Your task to perform on an android device: Show me productivity apps on the Play Store Image 0: 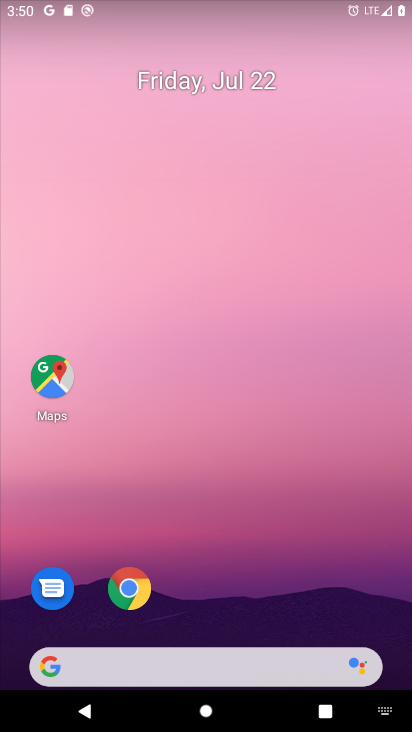
Step 0: drag from (264, 598) to (278, 73)
Your task to perform on an android device: Show me productivity apps on the Play Store Image 1: 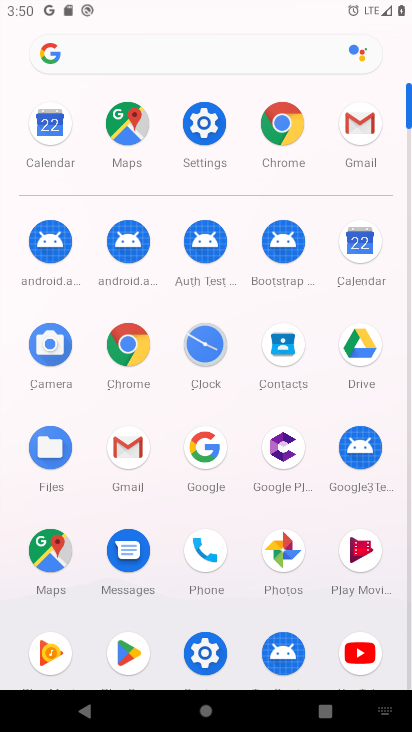
Step 1: click (133, 646)
Your task to perform on an android device: Show me productivity apps on the Play Store Image 2: 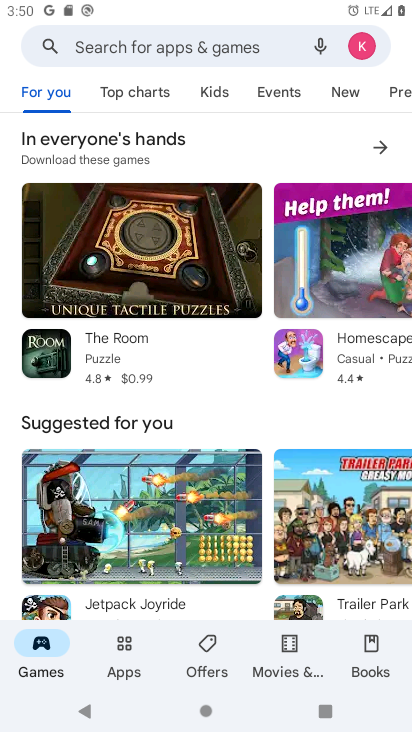
Step 2: click (111, 37)
Your task to perform on an android device: Show me productivity apps on the Play Store Image 3: 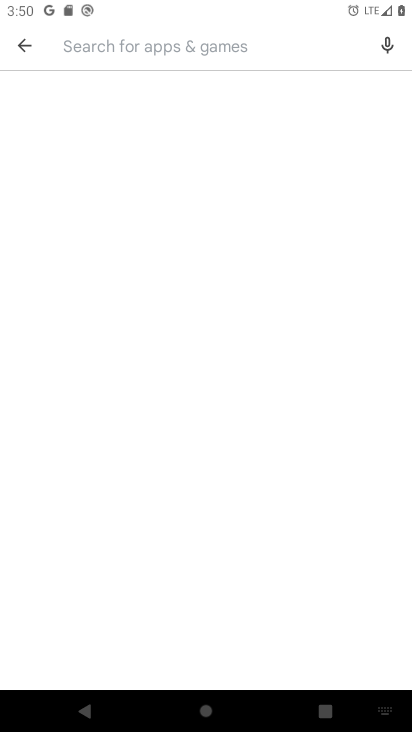
Step 3: type " productivity apps "
Your task to perform on an android device: Show me productivity apps on the Play Store Image 4: 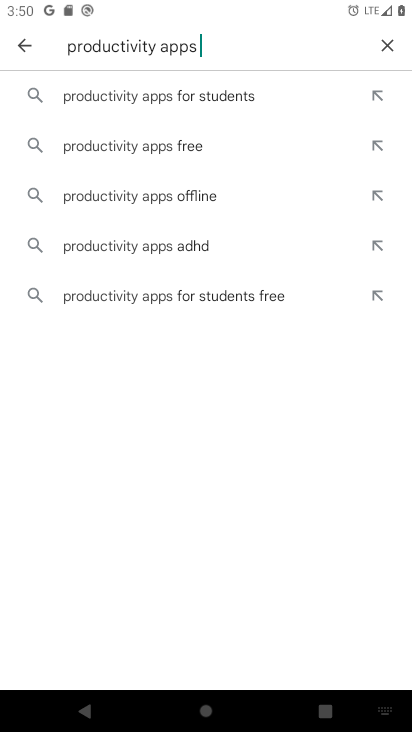
Step 4: click (84, 92)
Your task to perform on an android device: Show me productivity apps on the Play Store Image 5: 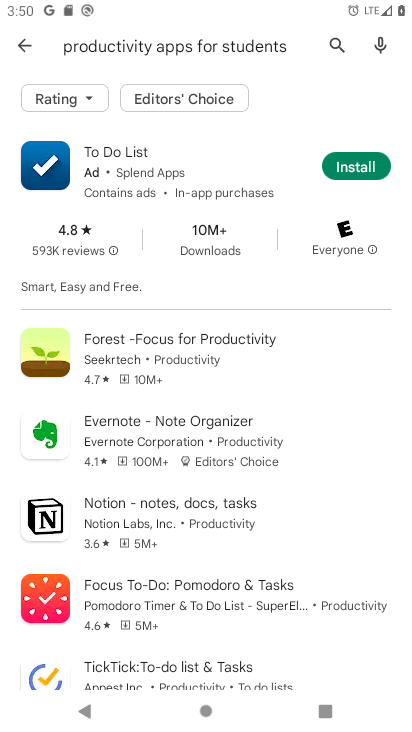
Step 5: task complete